Your task to perform on an android device: turn vacation reply on in the gmail app Image 0: 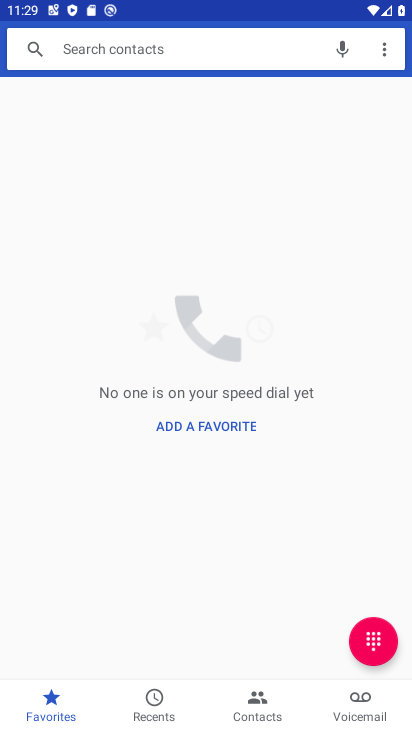
Step 0: press home button
Your task to perform on an android device: turn vacation reply on in the gmail app Image 1: 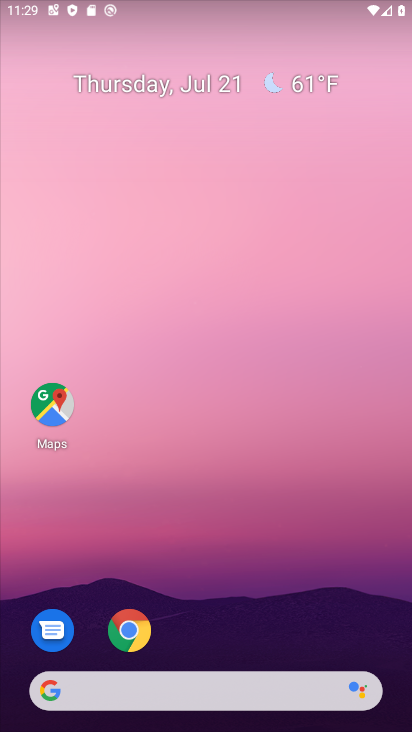
Step 1: drag from (155, 684) to (177, 208)
Your task to perform on an android device: turn vacation reply on in the gmail app Image 2: 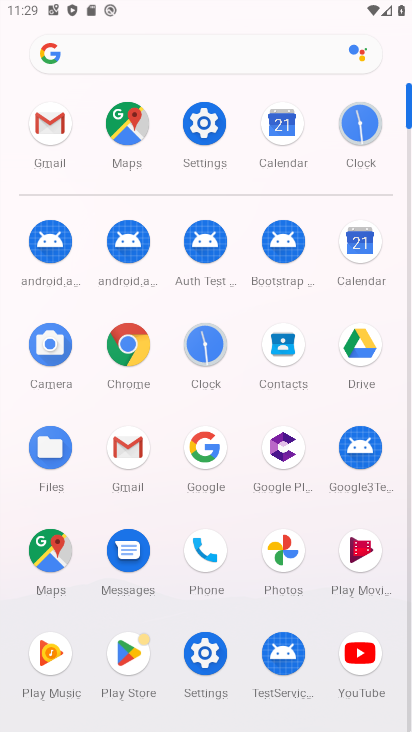
Step 2: click (125, 451)
Your task to perform on an android device: turn vacation reply on in the gmail app Image 3: 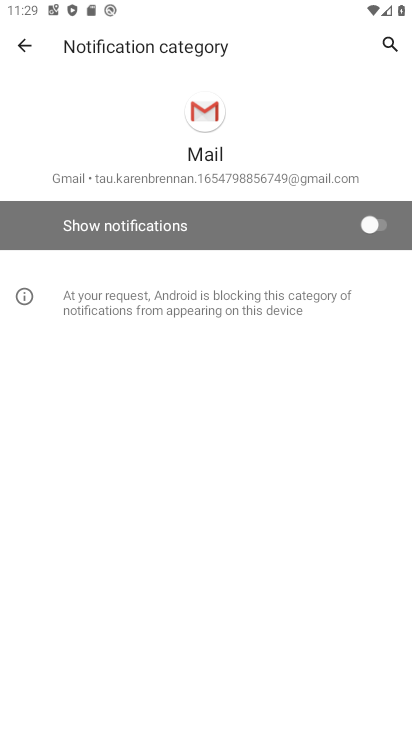
Step 3: click (21, 51)
Your task to perform on an android device: turn vacation reply on in the gmail app Image 4: 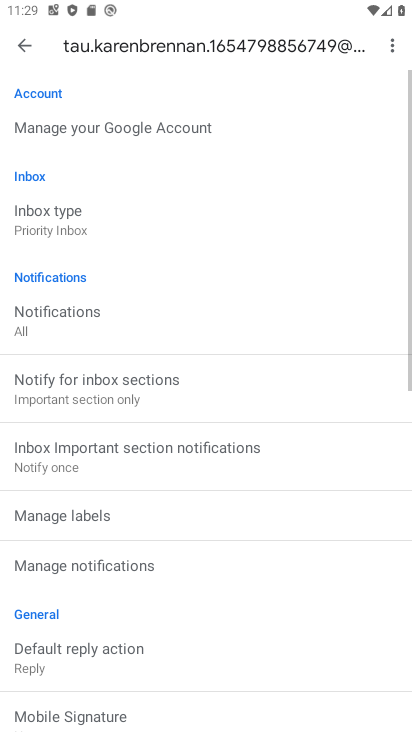
Step 4: drag from (79, 684) to (75, 220)
Your task to perform on an android device: turn vacation reply on in the gmail app Image 5: 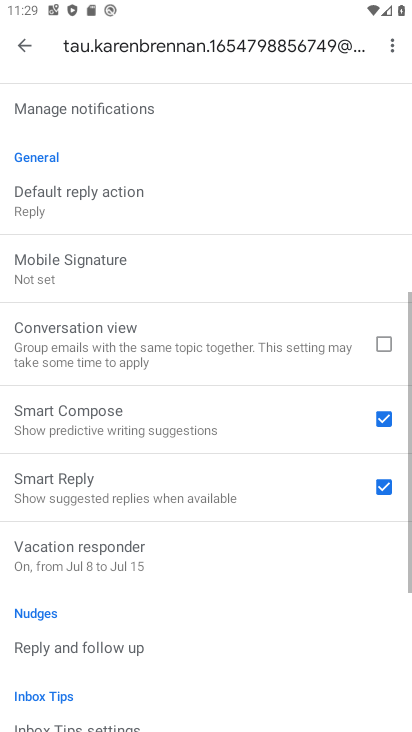
Step 5: click (58, 590)
Your task to perform on an android device: turn vacation reply on in the gmail app Image 6: 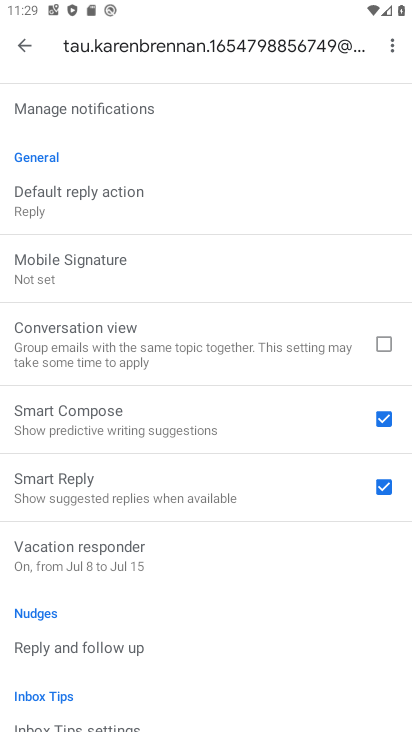
Step 6: click (64, 559)
Your task to perform on an android device: turn vacation reply on in the gmail app Image 7: 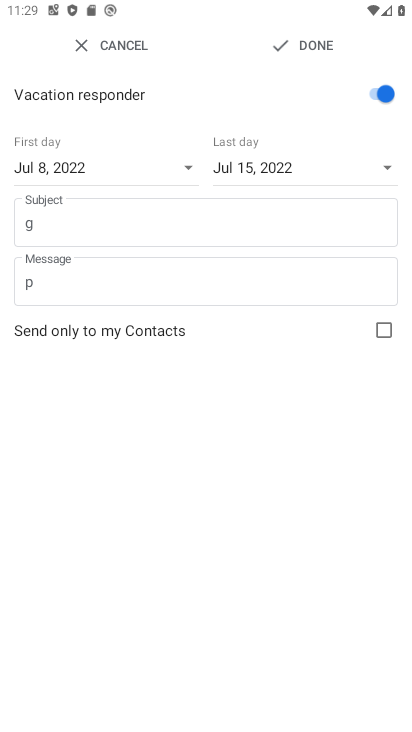
Step 7: task complete